Your task to perform on an android device: Search for runner rugs on Crate & Barrel Image 0: 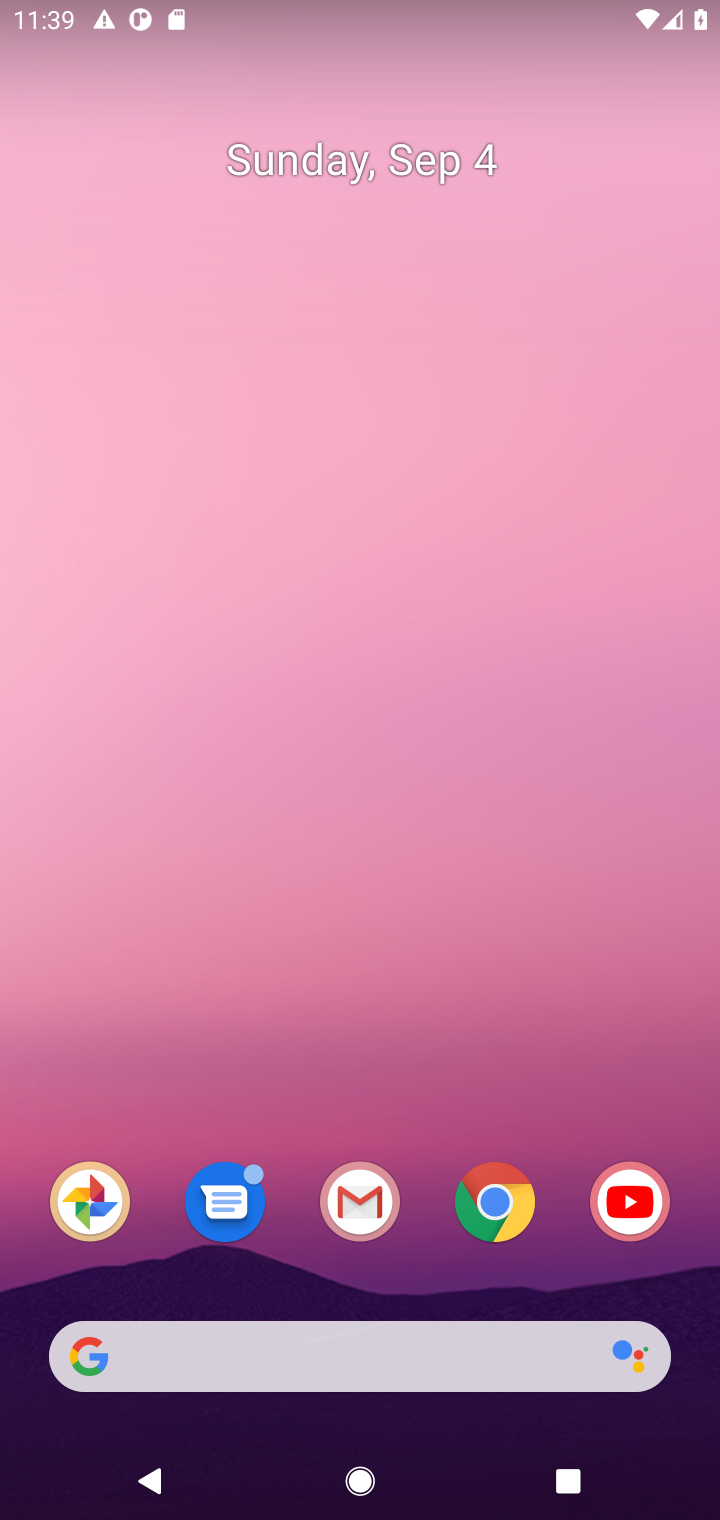
Step 0: drag from (430, 354) to (596, 35)
Your task to perform on an android device: Search for runner rugs on Crate & Barrel Image 1: 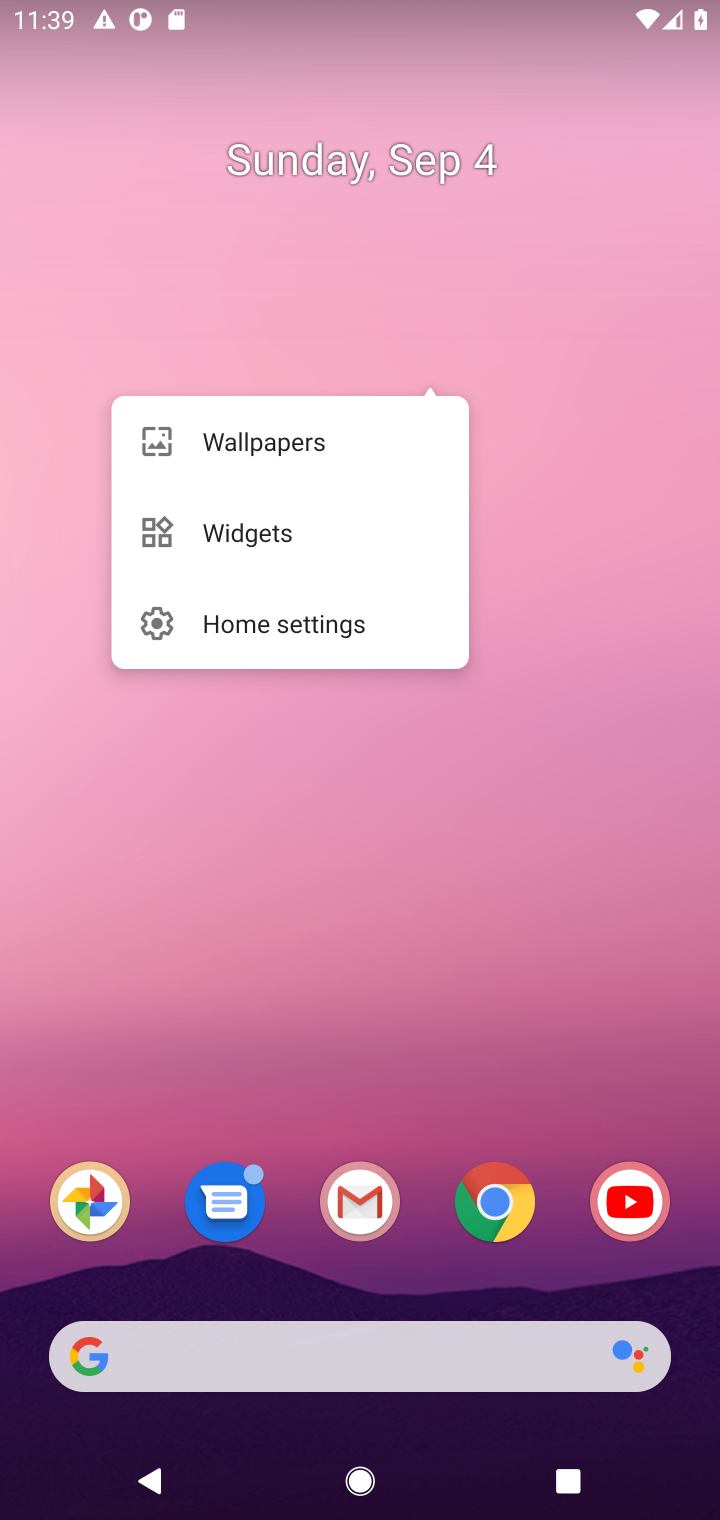
Step 1: click (573, 1089)
Your task to perform on an android device: Search for runner rugs on Crate & Barrel Image 2: 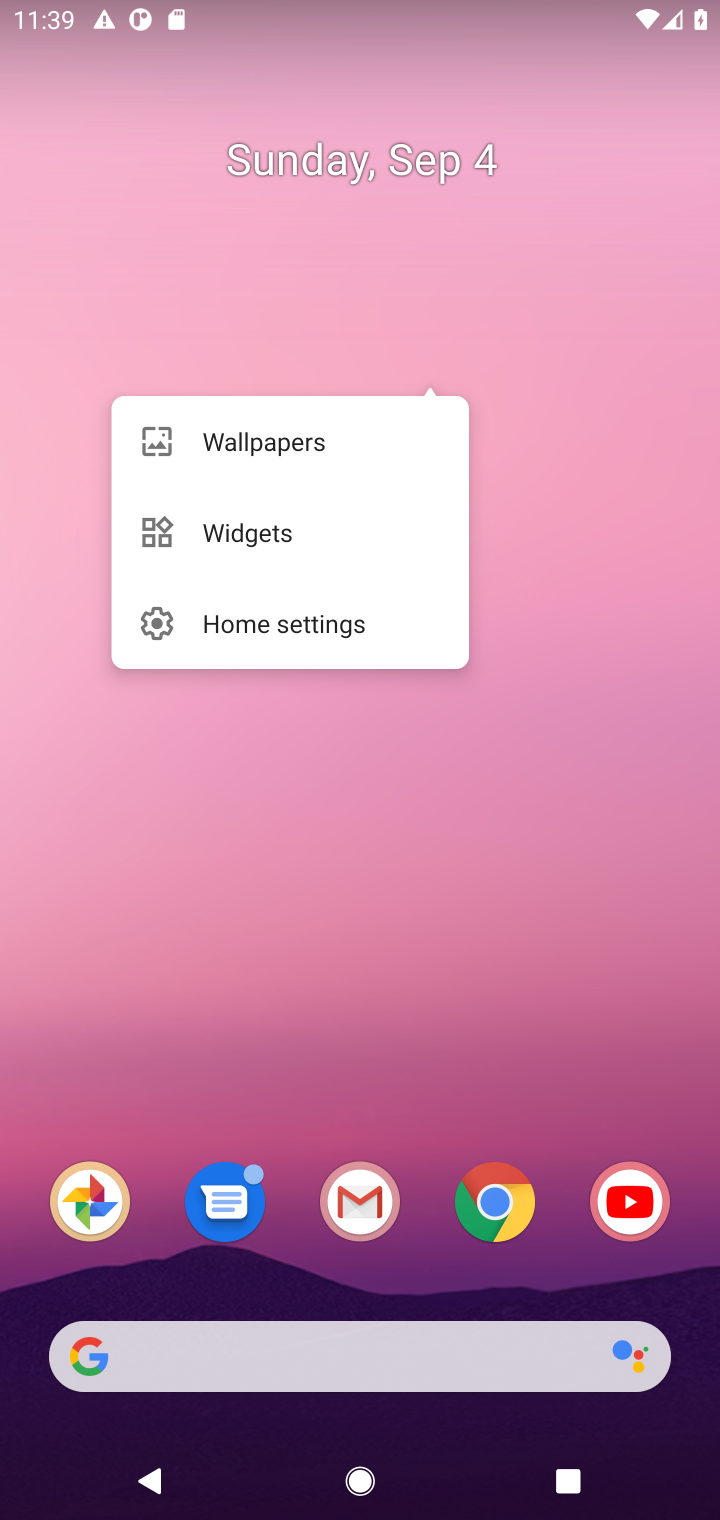
Step 2: drag from (550, 496) to (587, 182)
Your task to perform on an android device: Search for runner rugs on Crate & Barrel Image 3: 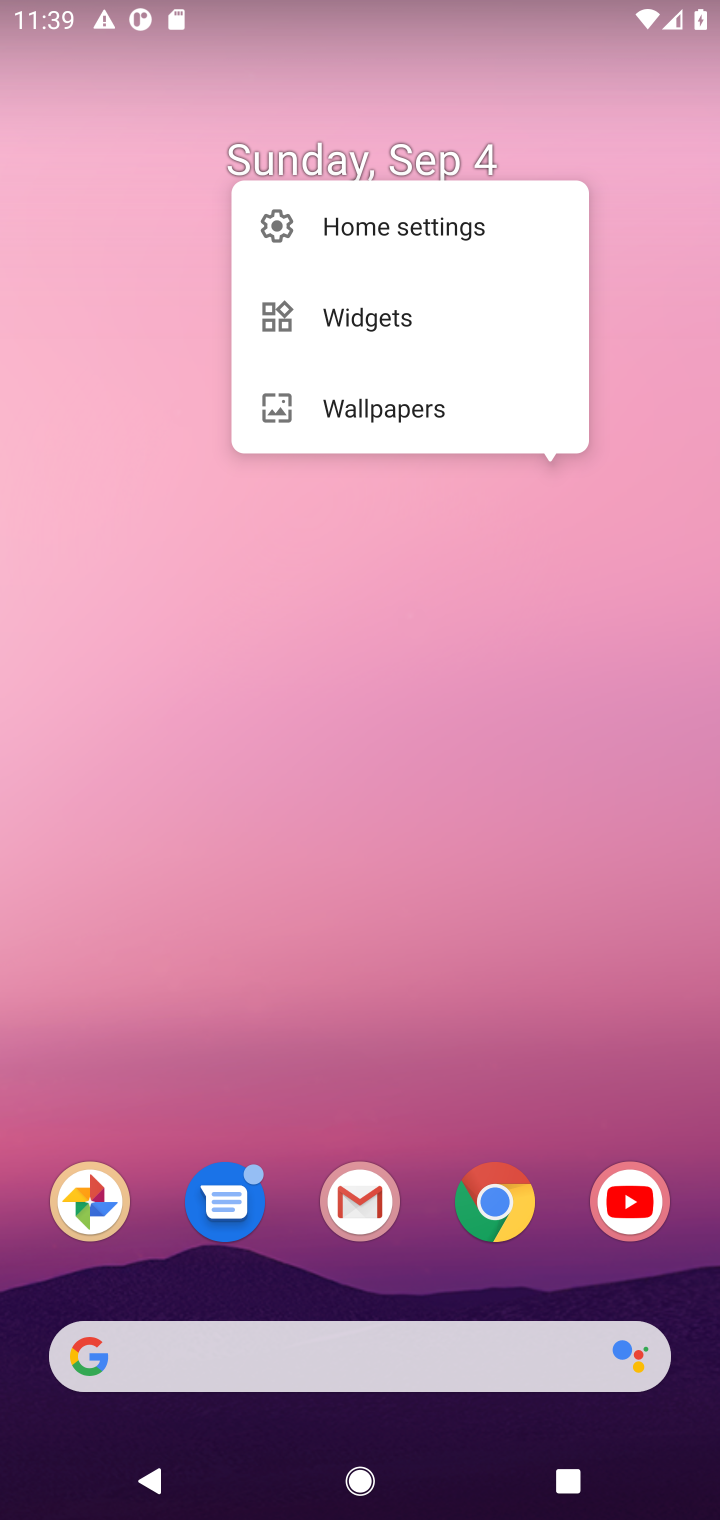
Step 3: click (593, 833)
Your task to perform on an android device: Search for runner rugs on Crate & Barrel Image 4: 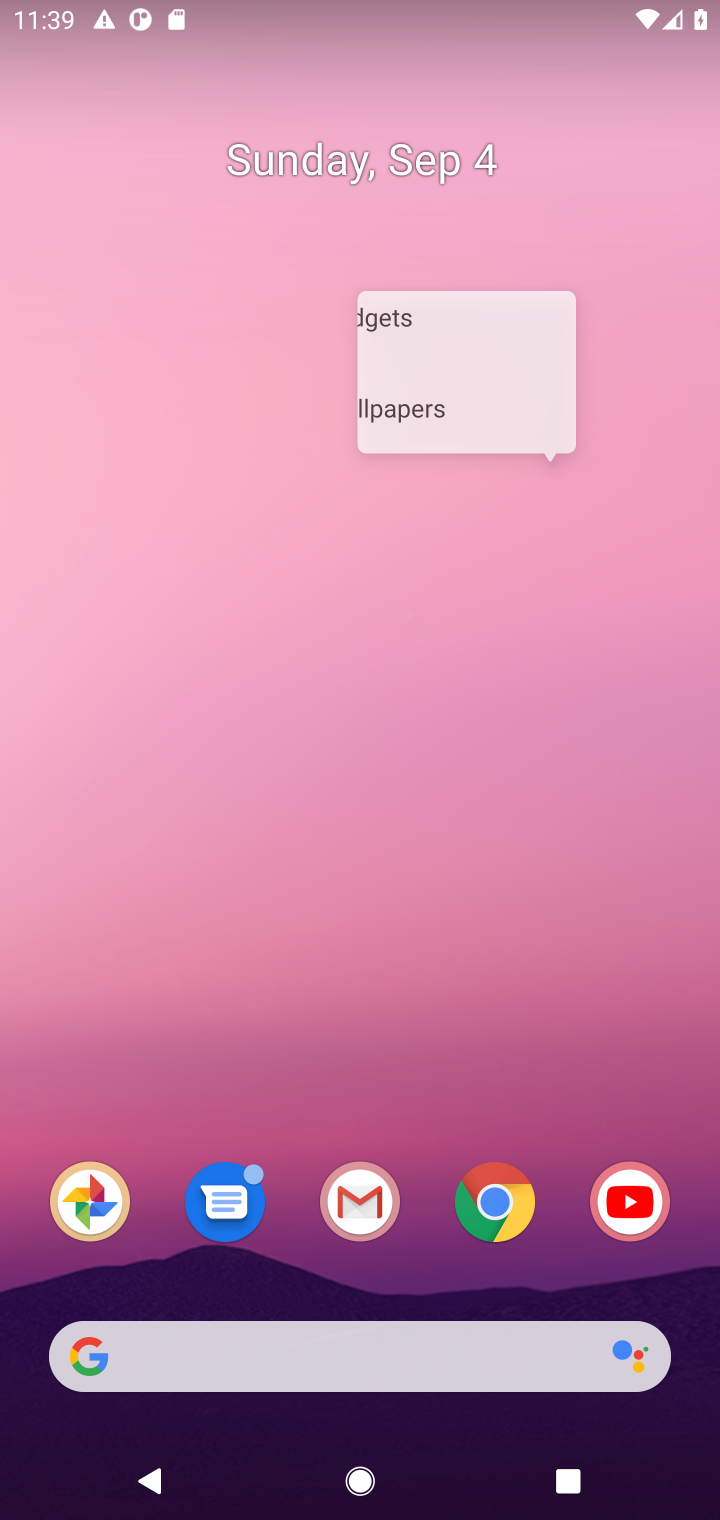
Step 4: click (563, 949)
Your task to perform on an android device: Search for runner rugs on Crate & Barrel Image 5: 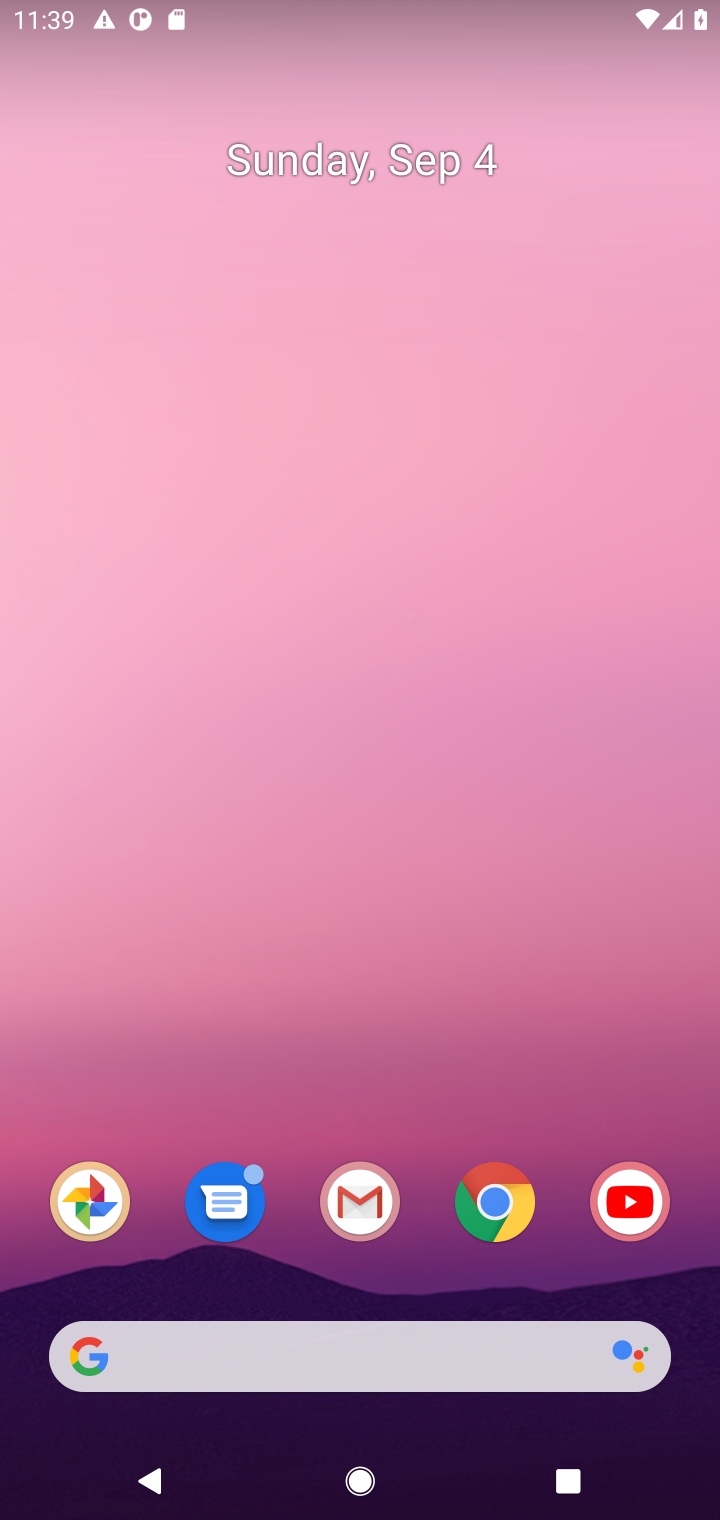
Step 5: drag from (575, 1256) to (575, 8)
Your task to perform on an android device: Search for runner rugs on Crate & Barrel Image 6: 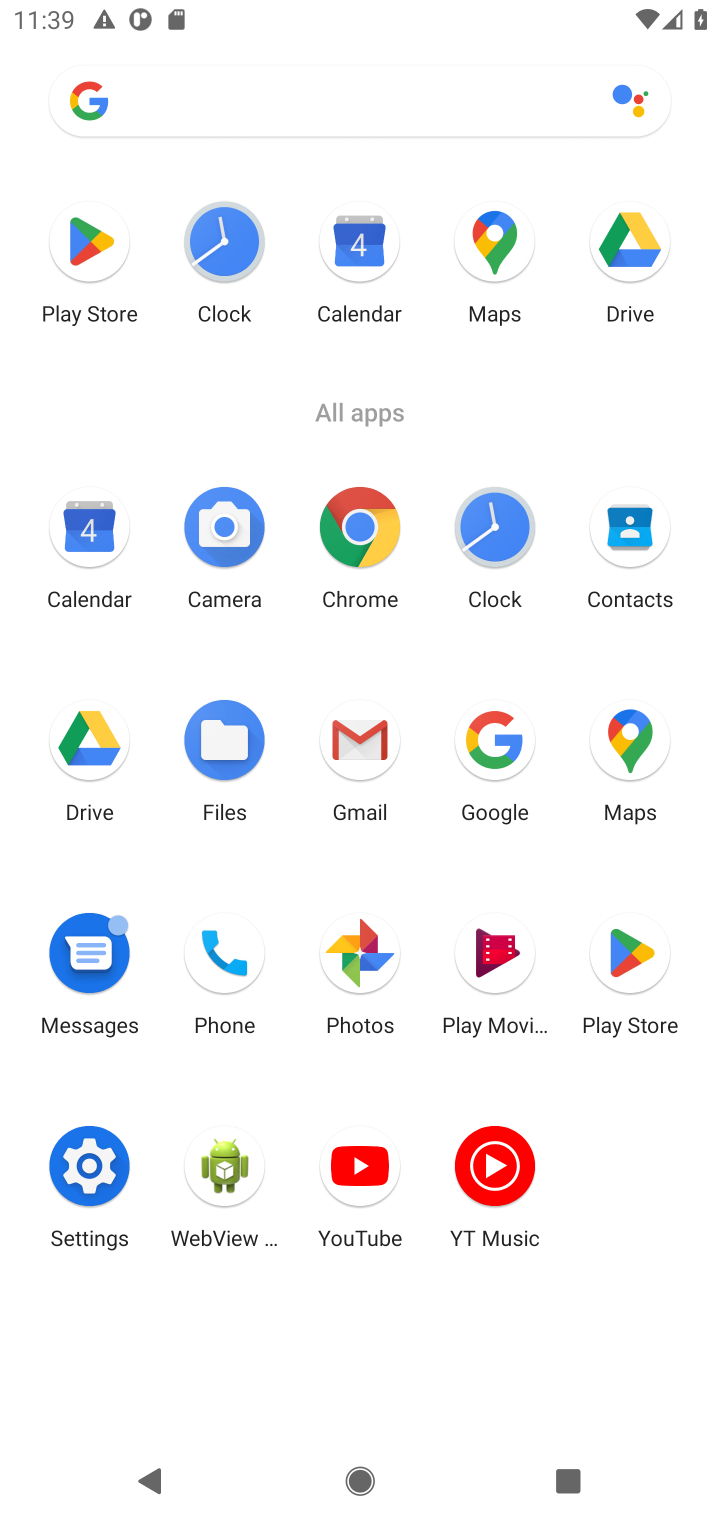
Step 6: click (365, 526)
Your task to perform on an android device: Search for runner rugs on Crate & Barrel Image 7: 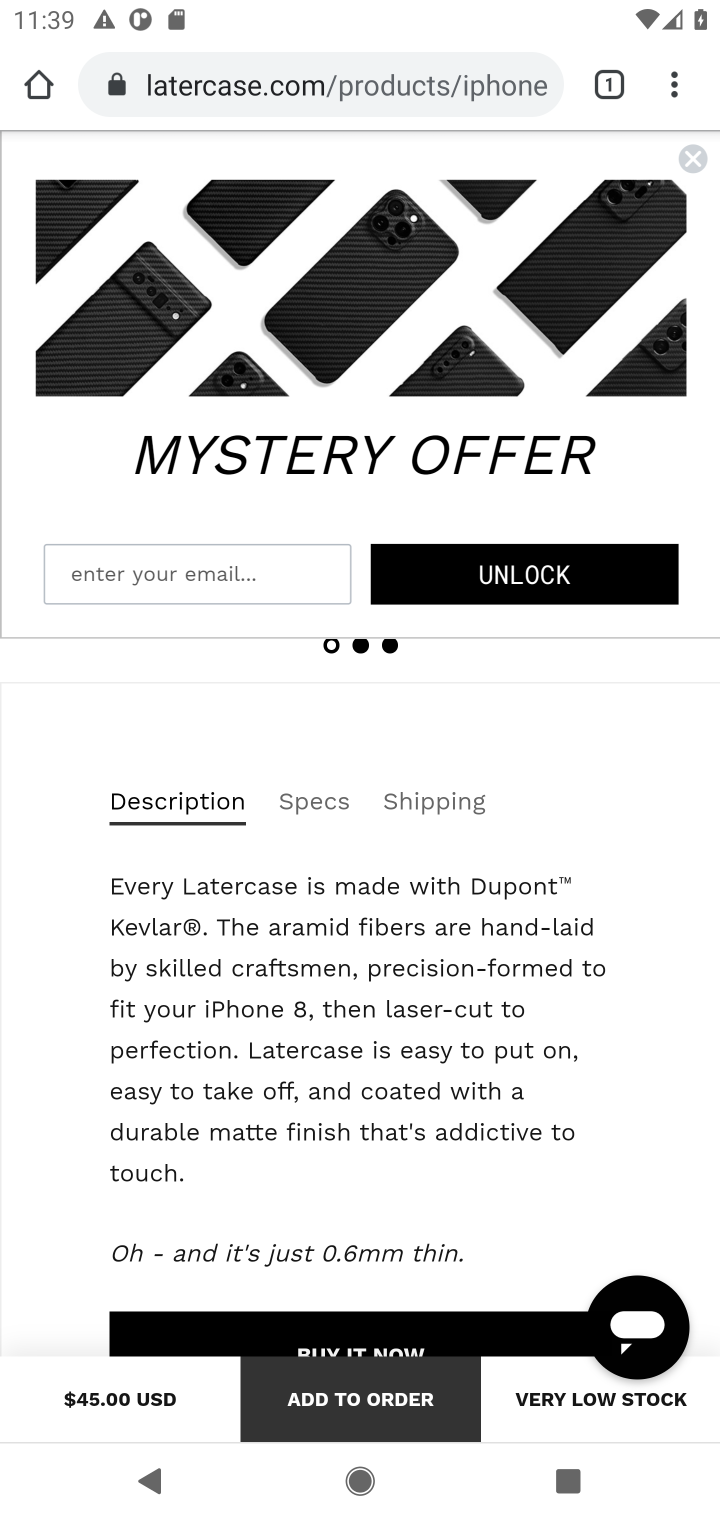
Step 7: click (370, 94)
Your task to perform on an android device: Search for runner rugs on Crate & Barrel Image 8: 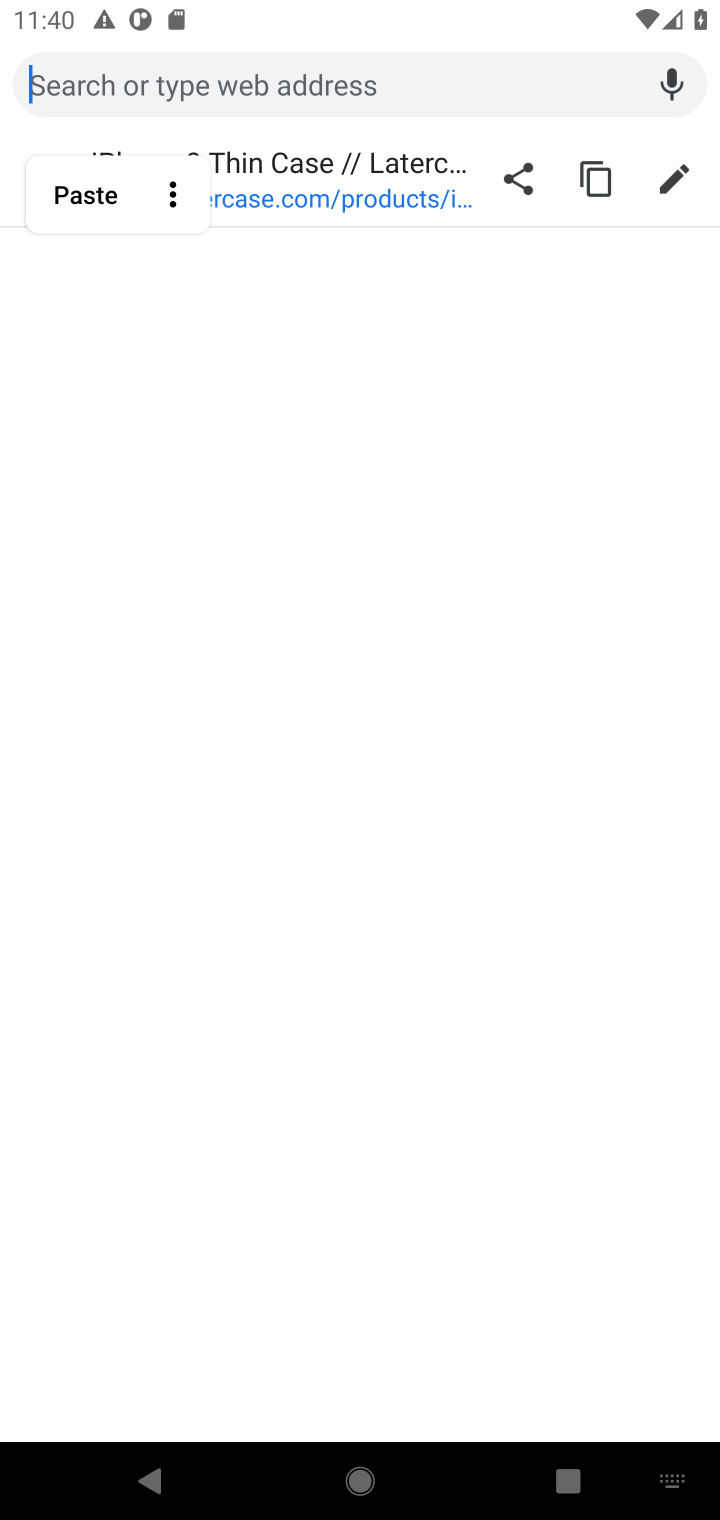
Step 8: type "runner rugs on Crate & Barrel"
Your task to perform on an android device: Search for runner rugs on Crate & Barrel Image 9: 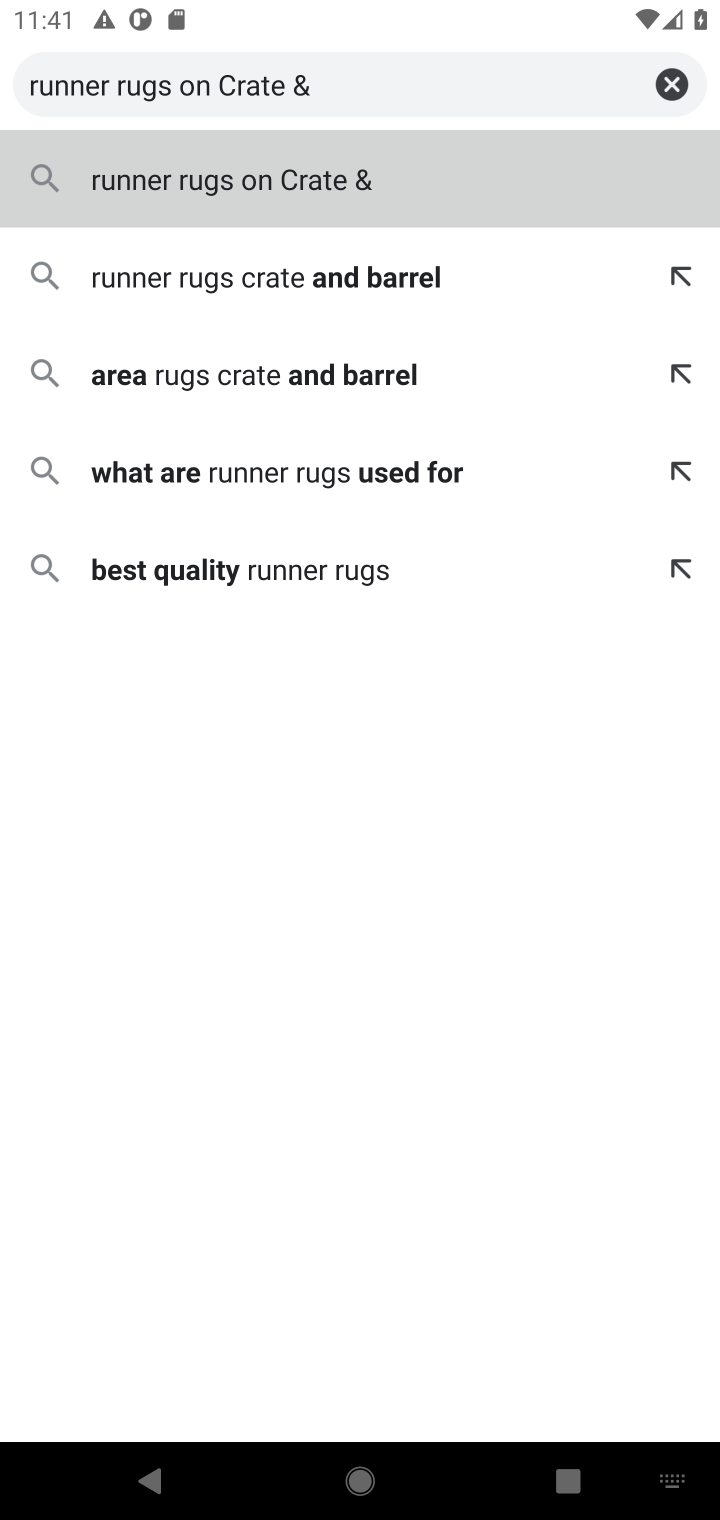
Step 9: type " Barrel"
Your task to perform on an android device: Search for runner rugs on Crate & Barrel Image 10: 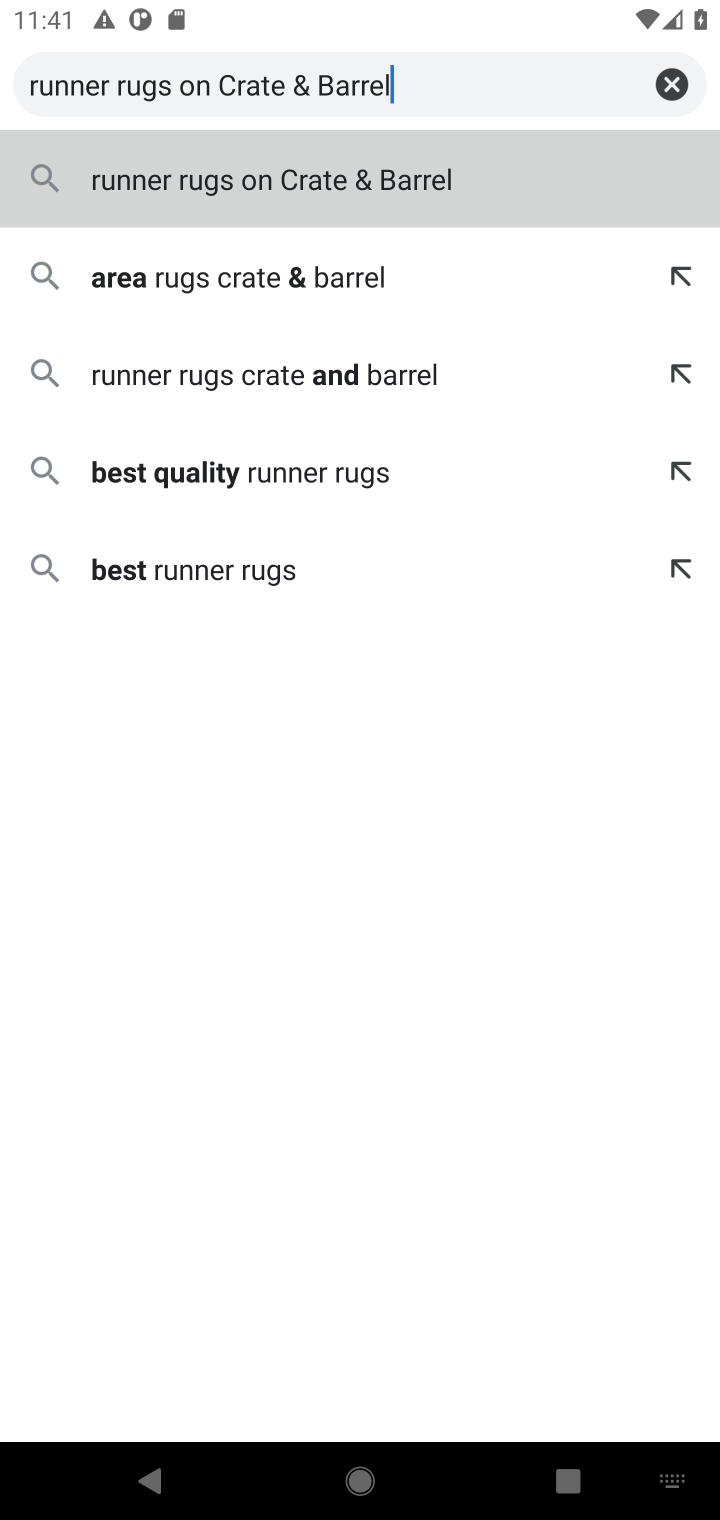
Step 10: press enter
Your task to perform on an android device: Search for runner rugs on Crate & Barrel Image 11: 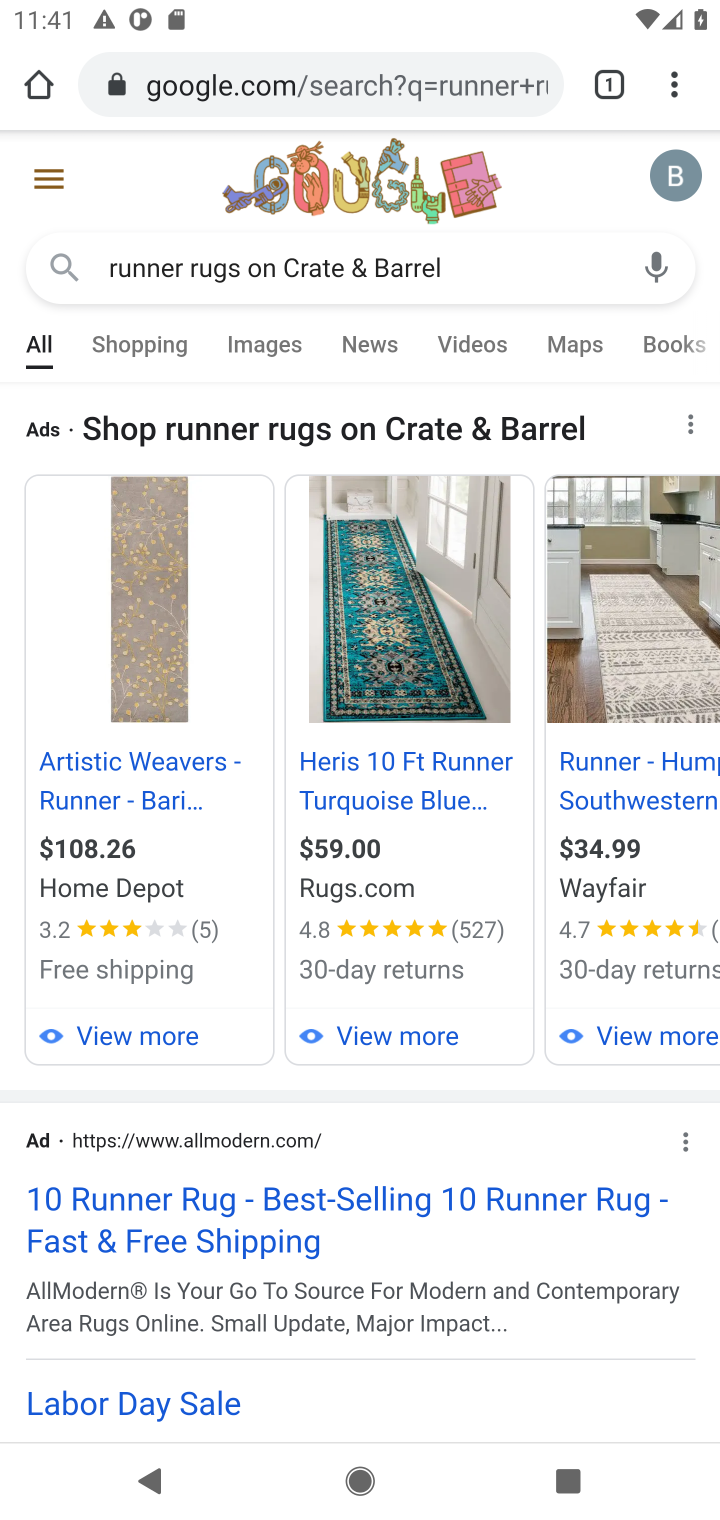
Step 11: drag from (203, 1337) to (322, 93)
Your task to perform on an android device: Search for runner rugs on Crate & Barrel Image 12: 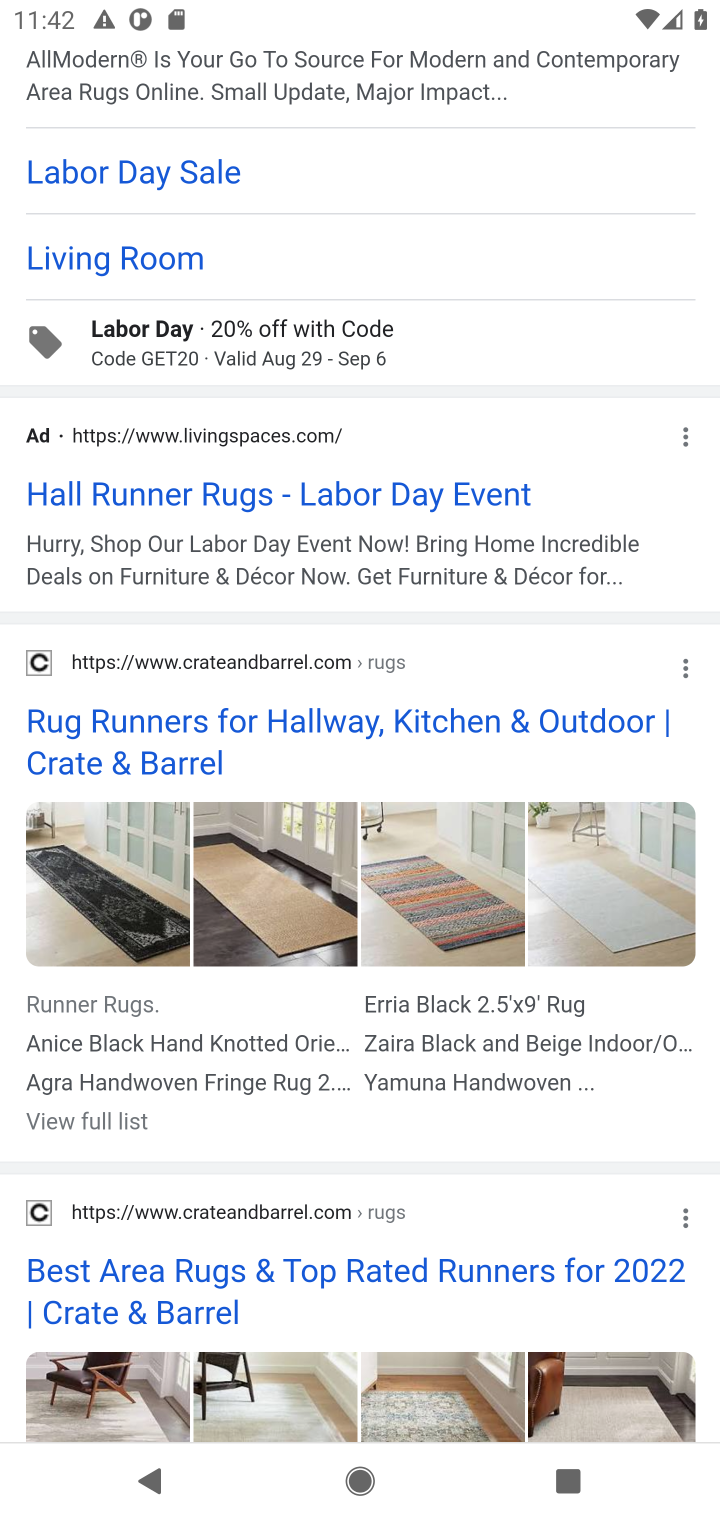
Step 12: click (208, 716)
Your task to perform on an android device: Search for runner rugs on Crate & Barrel Image 13: 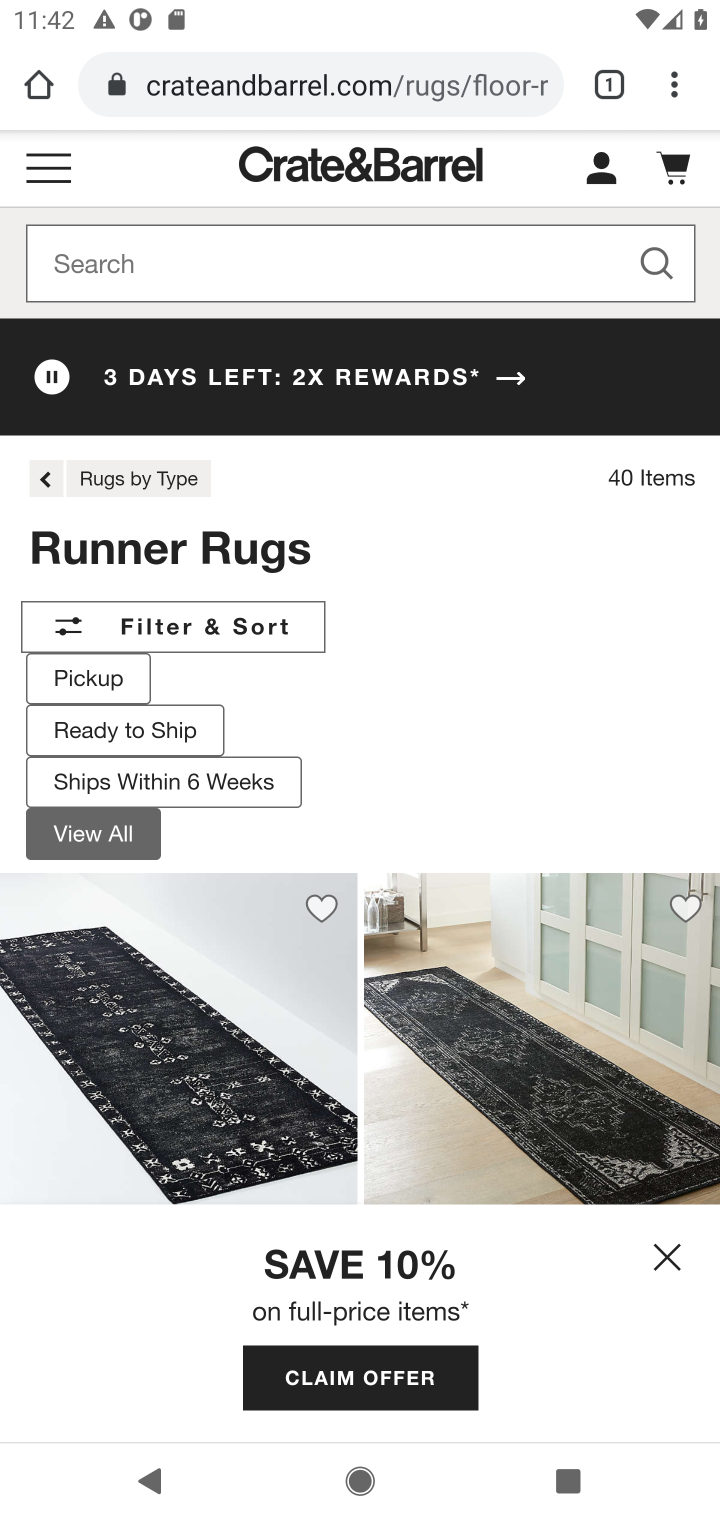
Step 13: drag from (359, 1038) to (434, 98)
Your task to perform on an android device: Search for runner rugs on Crate & Barrel Image 14: 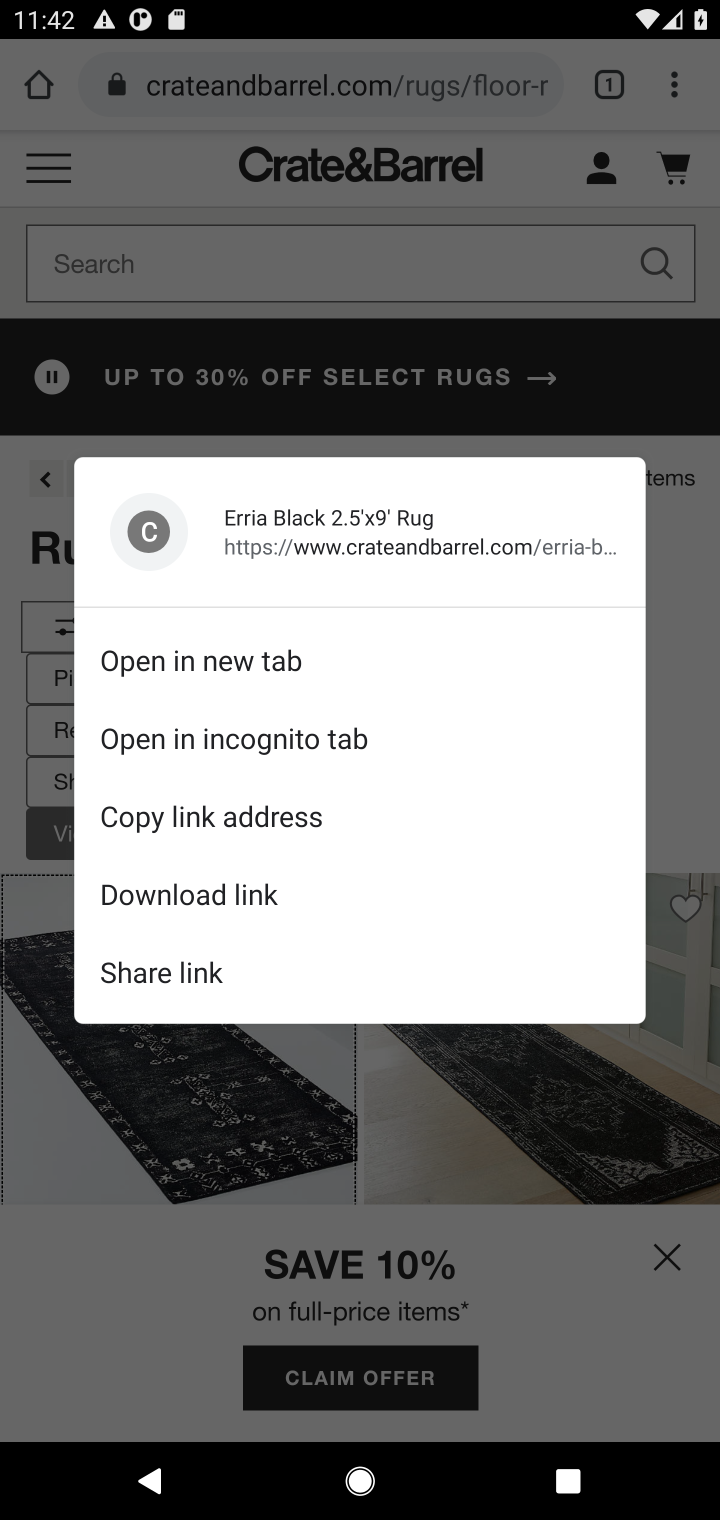
Step 14: click (424, 1151)
Your task to perform on an android device: Search for runner rugs on Crate & Barrel Image 15: 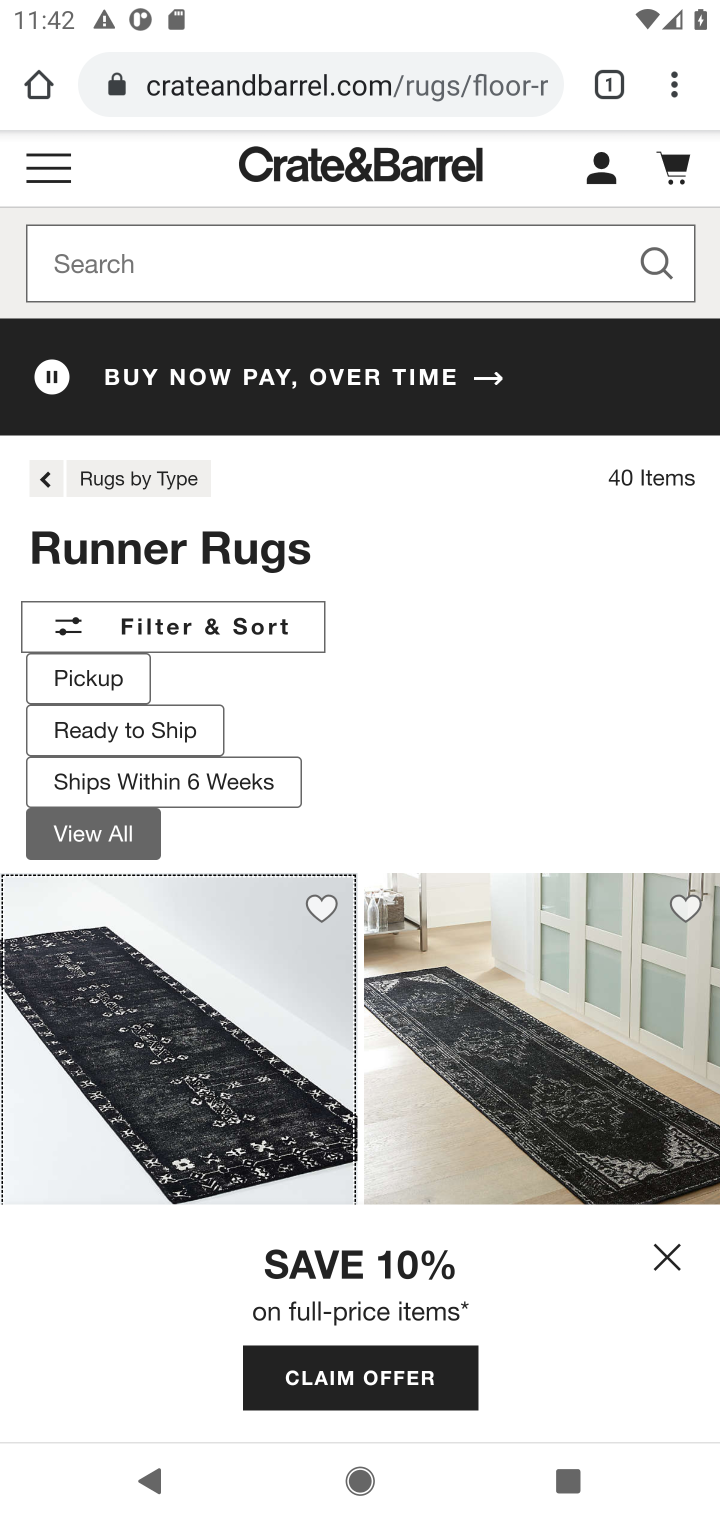
Step 15: click (539, 137)
Your task to perform on an android device: Search for runner rugs on Crate & Barrel Image 16: 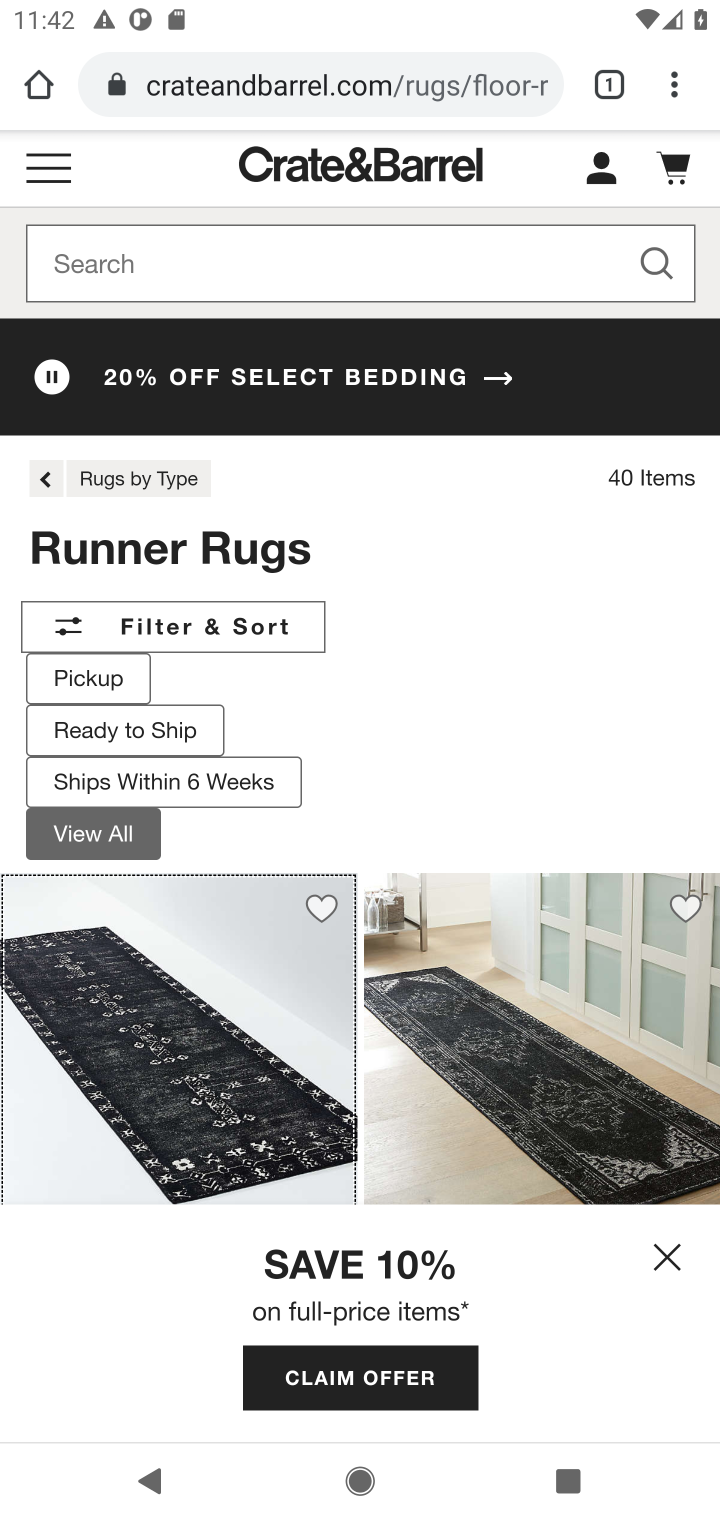
Step 16: task complete